Your task to perform on an android device: see tabs open on other devices in the chrome app Image 0: 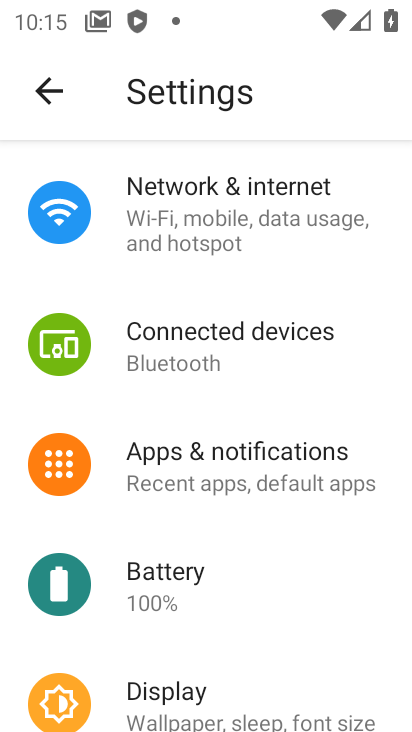
Step 0: press home button
Your task to perform on an android device: see tabs open on other devices in the chrome app Image 1: 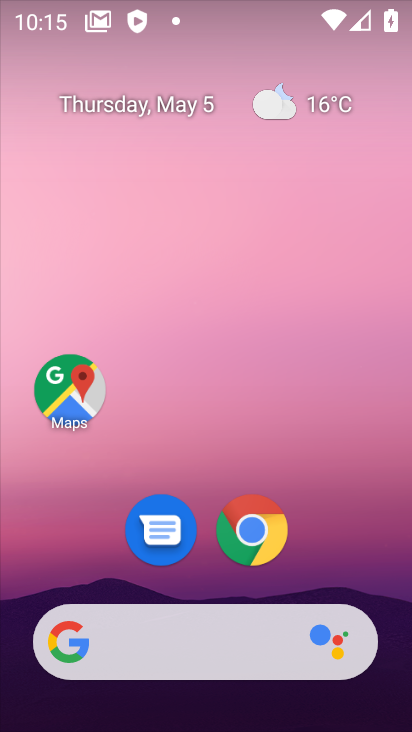
Step 1: click (256, 535)
Your task to perform on an android device: see tabs open on other devices in the chrome app Image 2: 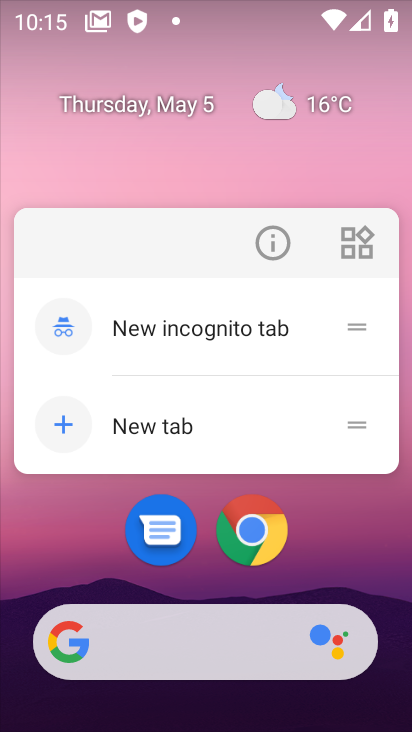
Step 2: click (257, 550)
Your task to perform on an android device: see tabs open on other devices in the chrome app Image 3: 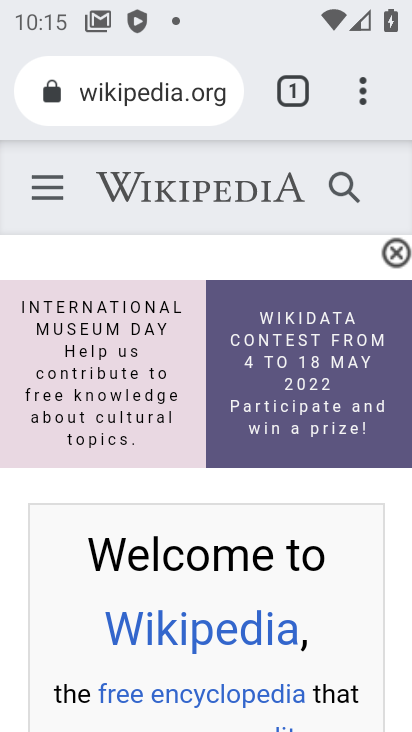
Step 3: drag from (373, 100) to (89, 347)
Your task to perform on an android device: see tabs open on other devices in the chrome app Image 4: 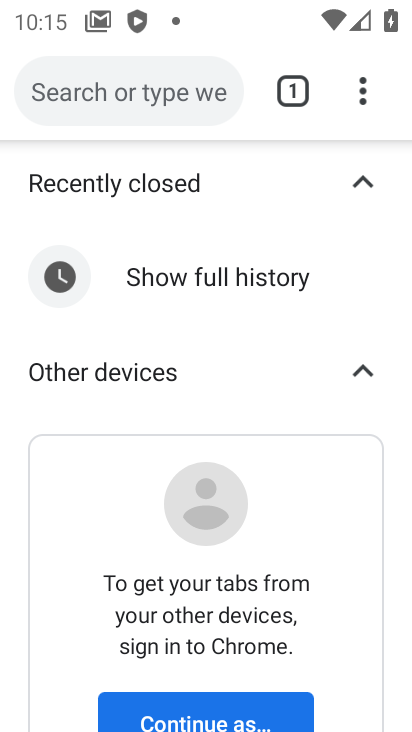
Step 4: drag from (297, 601) to (260, 309)
Your task to perform on an android device: see tabs open on other devices in the chrome app Image 5: 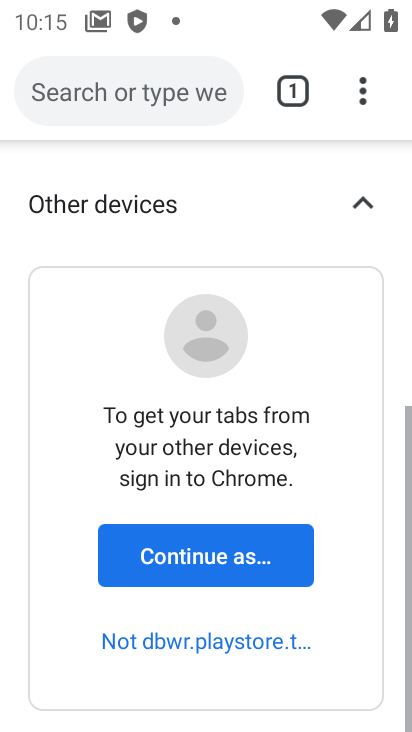
Step 5: click (218, 560)
Your task to perform on an android device: see tabs open on other devices in the chrome app Image 6: 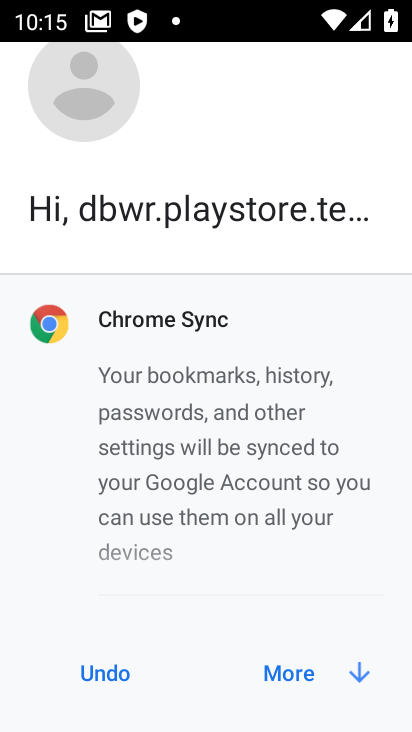
Step 6: click (284, 668)
Your task to perform on an android device: see tabs open on other devices in the chrome app Image 7: 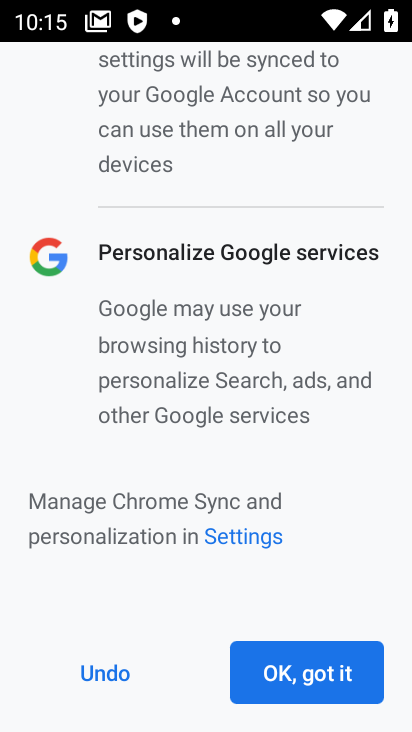
Step 7: click (334, 671)
Your task to perform on an android device: see tabs open on other devices in the chrome app Image 8: 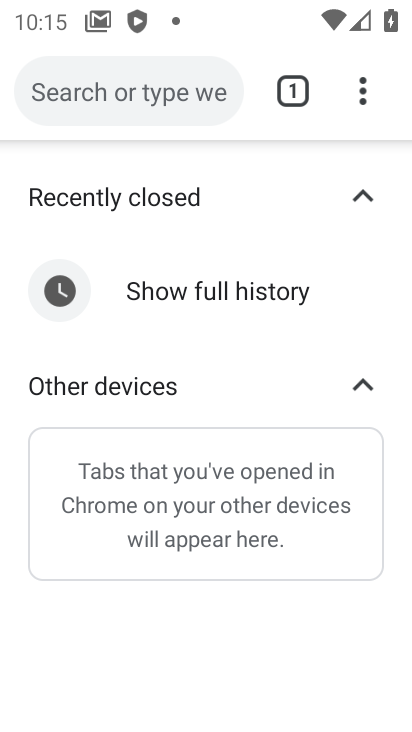
Step 8: task complete